Your task to perform on an android device: Open the stopwatch Image 0: 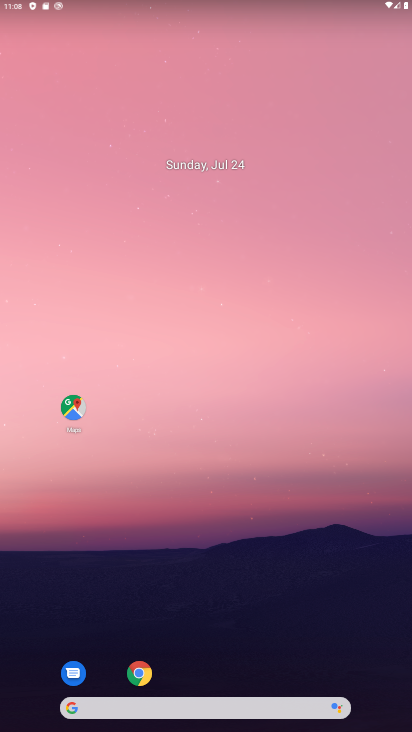
Step 0: drag from (199, 705) to (288, 173)
Your task to perform on an android device: Open the stopwatch Image 1: 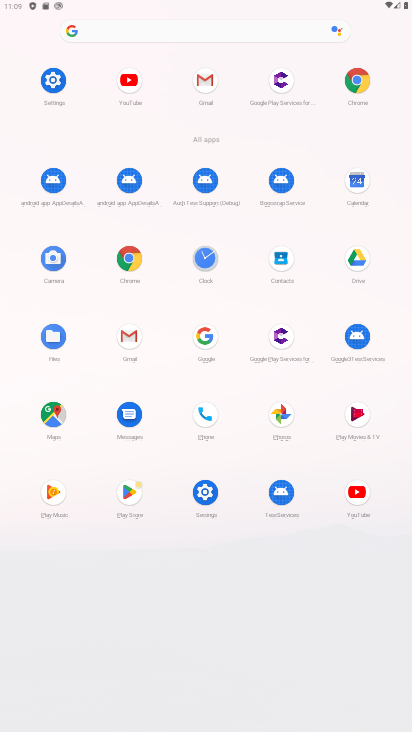
Step 1: click (204, 261)
Your task to perform on an android device: Open the stopwatch Image 2: 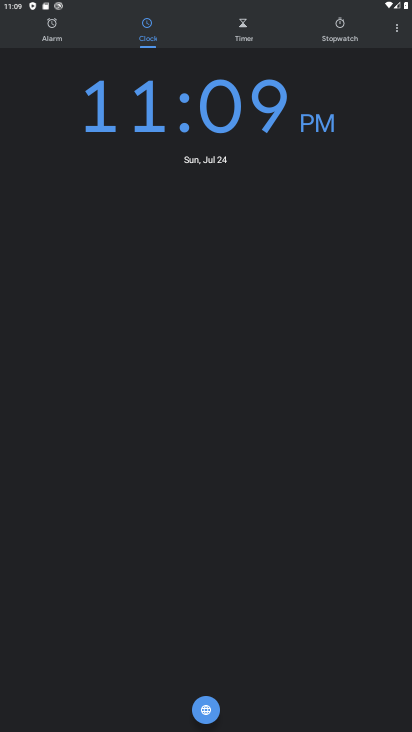
Step 2: click (340, 27)
Your task to perform on an android device: Open the stopwatch Image 3: 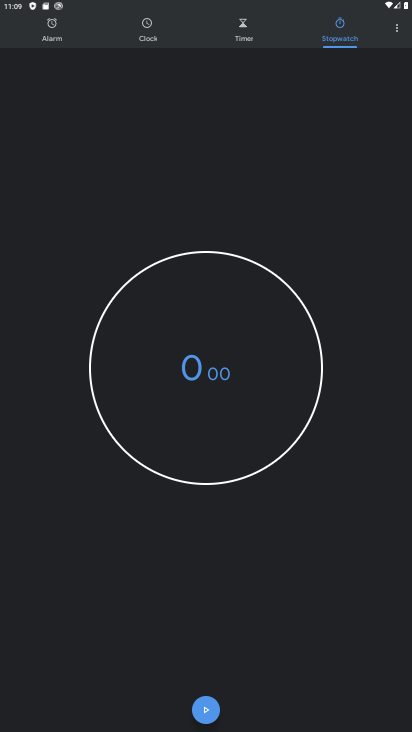
Step 3: task complete